Your task to perform on an android device: check out phone information Image 0: 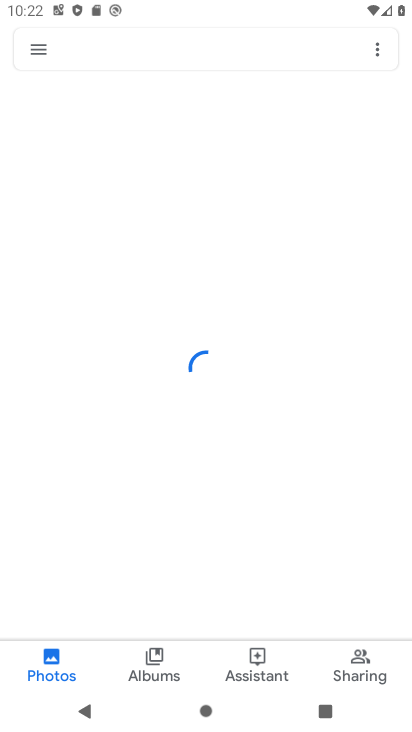
Step 0: press home button
Your task to perform on an android device: check out phone information Image 1: 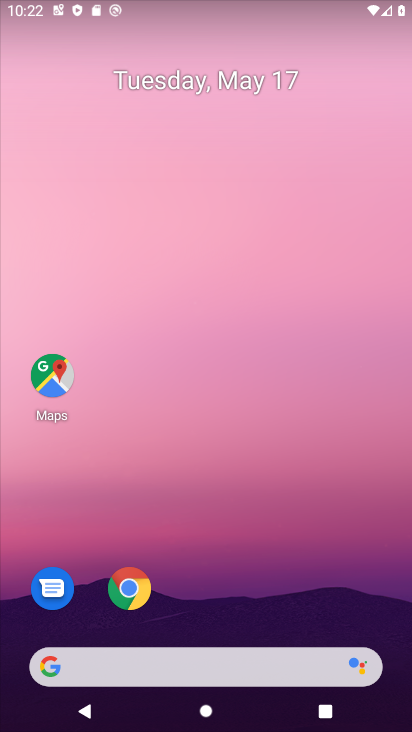
Step 1: drag from (207, 558) to (274, 29)
Your task to perform on an android device: check out phone information Image 2: 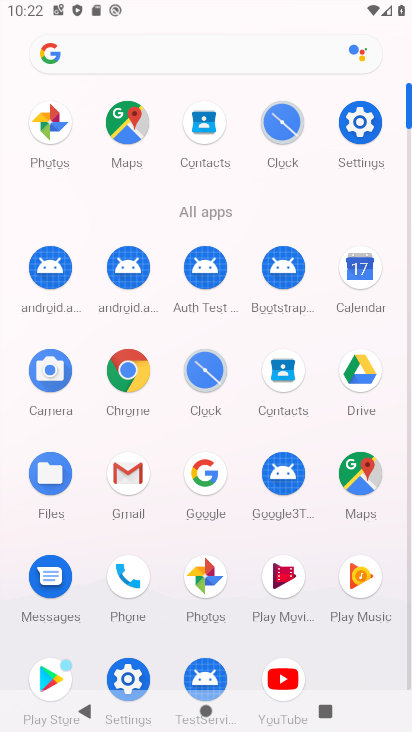
Step 2: click (368, 137)
Your task to perform on an android device: check out phone information Image 3: 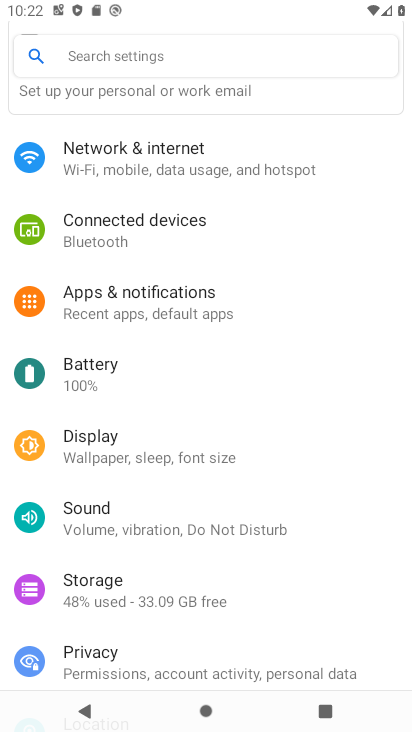
Step 3: drag from (187, 578) to (248, 7)
Your task to perform on an android device: check out phone information Image 4: 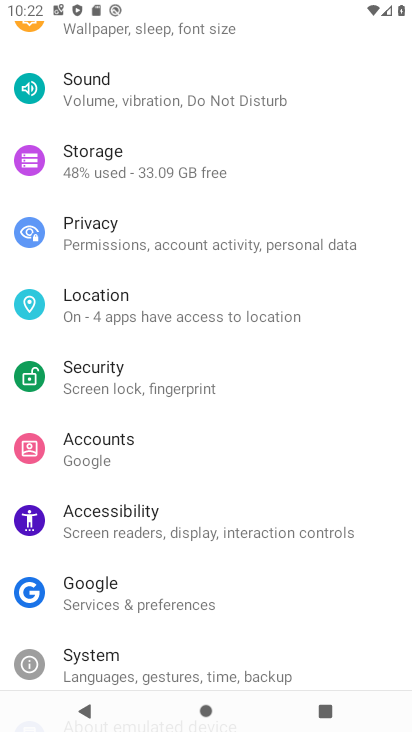
Step 4: drag from (143, 639) to (197, 191)
Your task to perform on an android device: check out phone information Image 5: 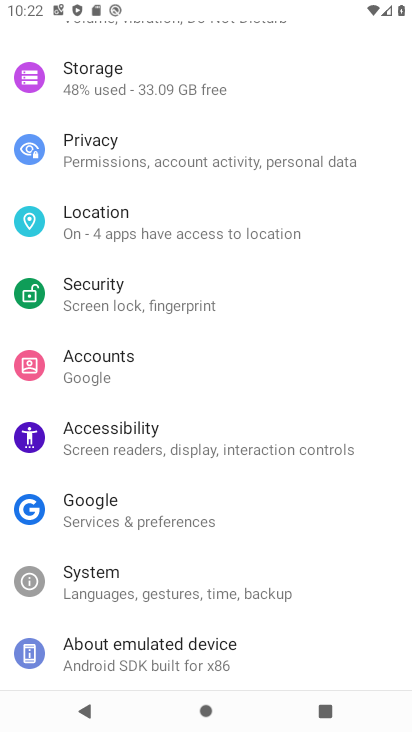
Step 5: click (135, 663)
Your task to perform on an android device: check out phone information Image 6: 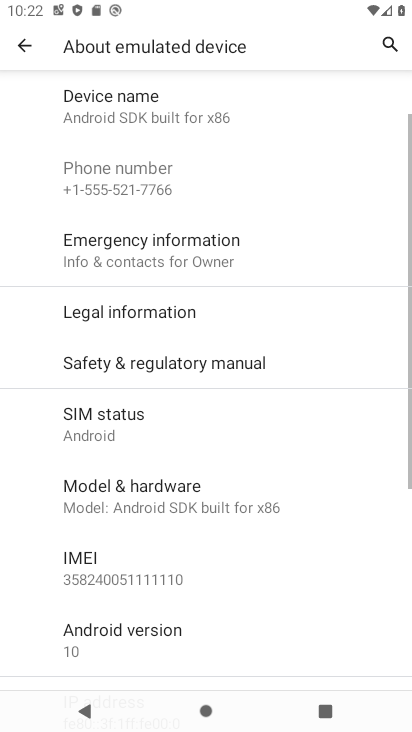
Step 6: task complete